Your task to perform on an android device: see sites visited before in the chrome app Image 0: 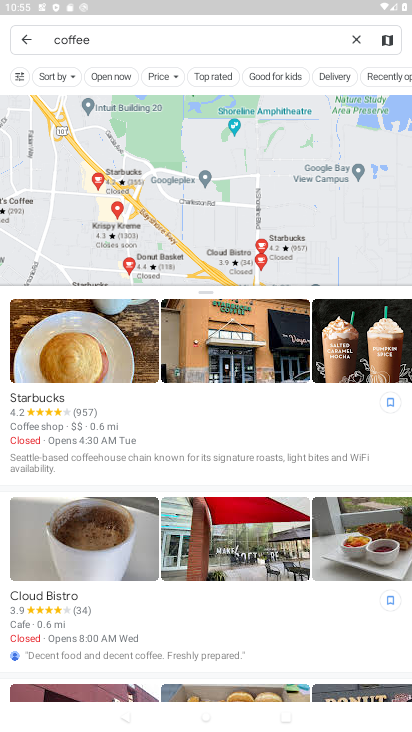
Step 0: press home button
Your task to perform on an android device: see sites visited before in the chrome app Image 1: 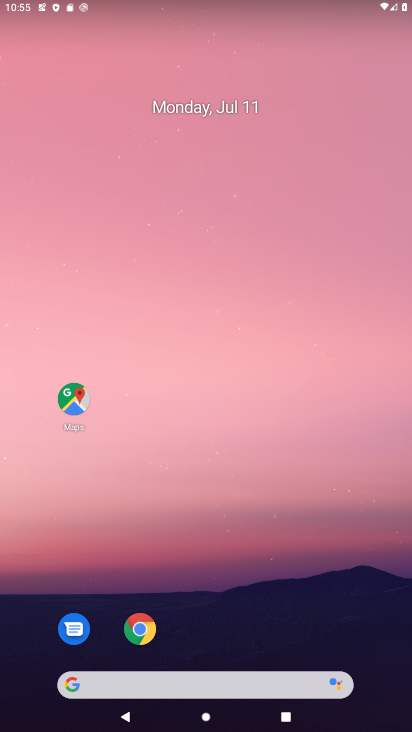
Step 1: click (157, 633)
Your task to perform on an android device: see sites visited before in the chrome app Image 2: 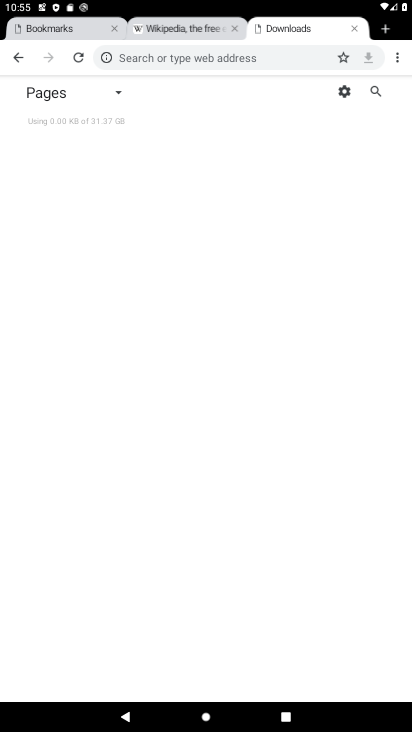
Step 2: click (399, 68)
Your task to perform on an android device: see sites visited before in the chrome app Image 3: 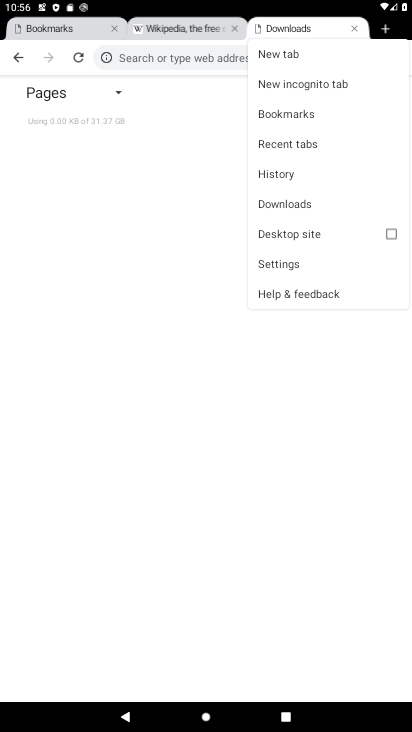
Step 3: click (312, 144)
Your task to perform on an android device: see sites visited before in the chrome app Image 4: 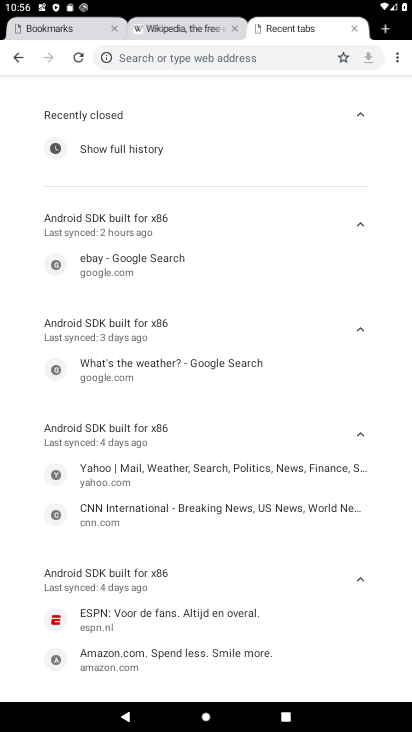
Step 4: task complete